Your task to perform on an android device: turn pop-ups off in chrome Image 0: 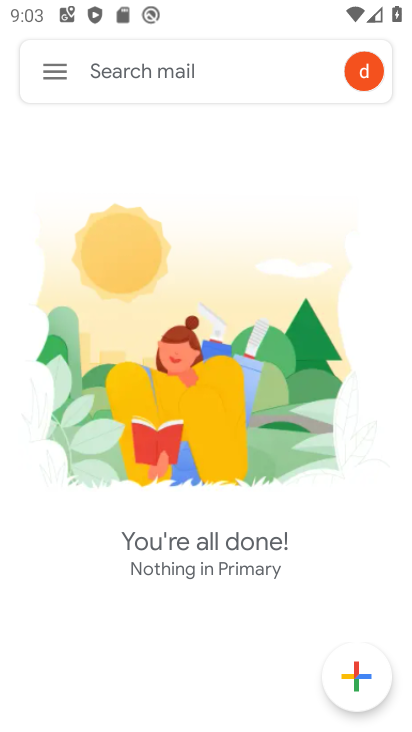
Step 0: press back button
Your task to perform on an android device: turn pop-ups off in chrome Image 1: 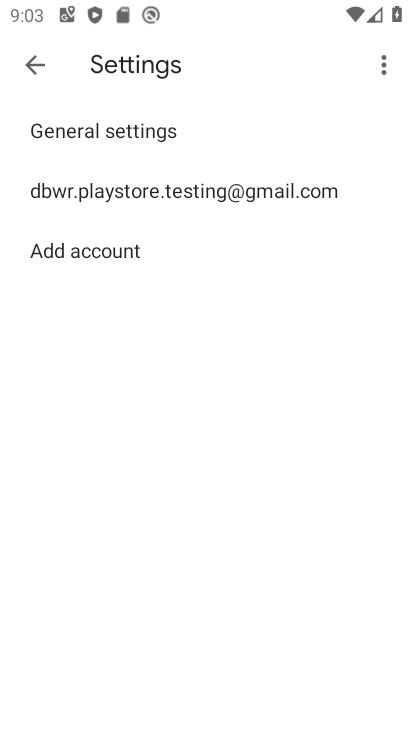
Step 1: press back button
Your task to perform on an android device: turn pop-ups off in chrome Image 2: 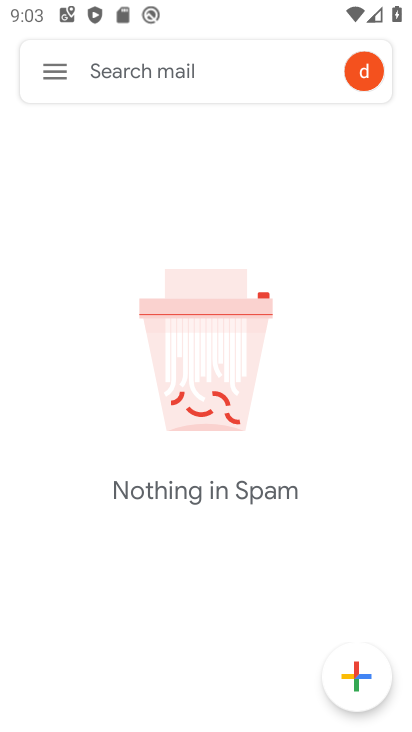
Step 2: press back button
Your task to perform on an android device: turn pop-ups off in chrome Image 3: 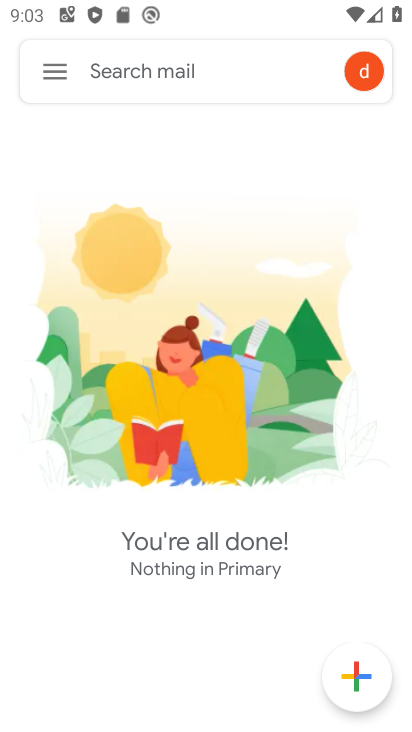
Step 3: press back button
Your task to perform on an android device: turn pop-ups off in chrome Image 4: 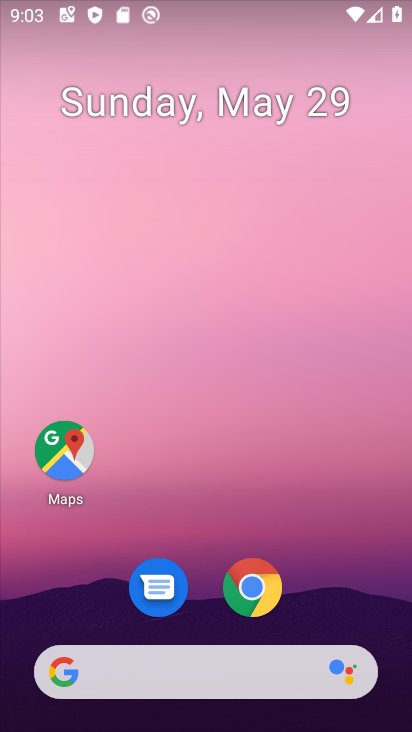
Step 4: click (253, 585)
Your task to perform on an android device: turn pop-ups off in chrome Image 5: 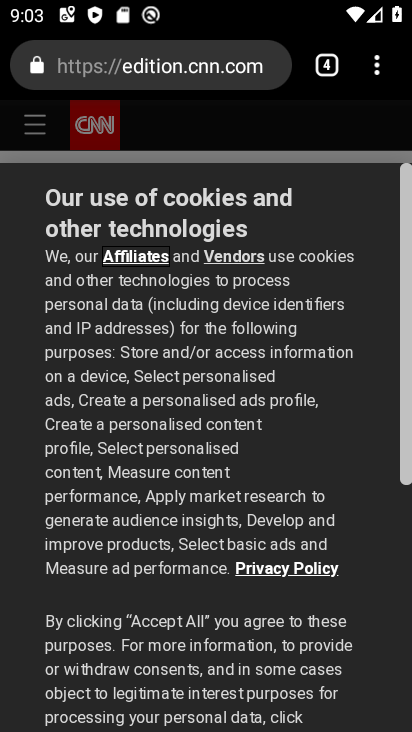
Step 5: drag from (375, 58) to (152, 635)
Your task to perform on an android device: turn pop-ups off in chrome Image 6: 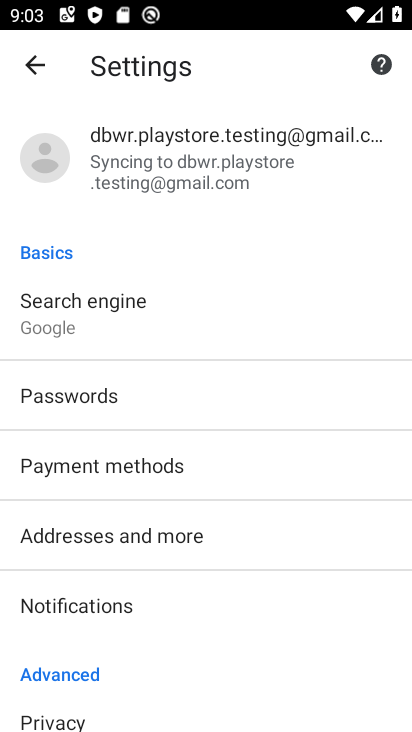
Step 6: drag from (159, 656) to (255, 170)
Your task to perform on an android device: turn pop-ups off in chrome Image 7: 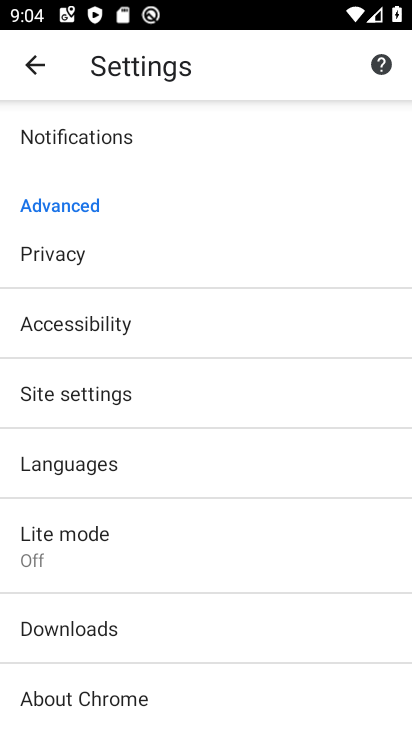
Step 7: click (111, 385)
Your task to perform on an android device: turn pop-ups off in chrome Image 8: 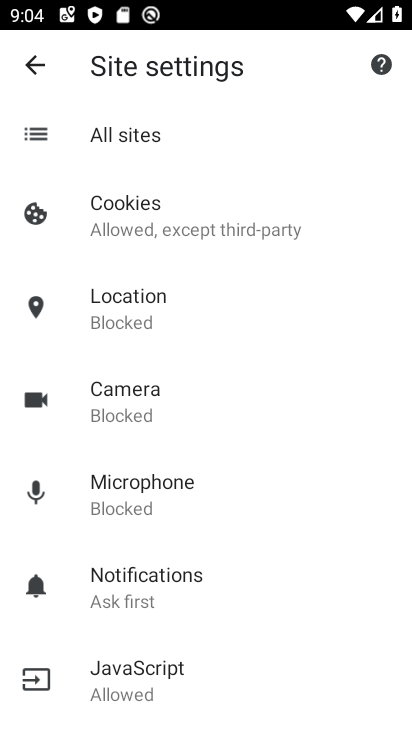
Step 8: drag from (141, 628) to (210, 207)
Your task to perform on an android device: turn pop-ups off in chrome Image 9: 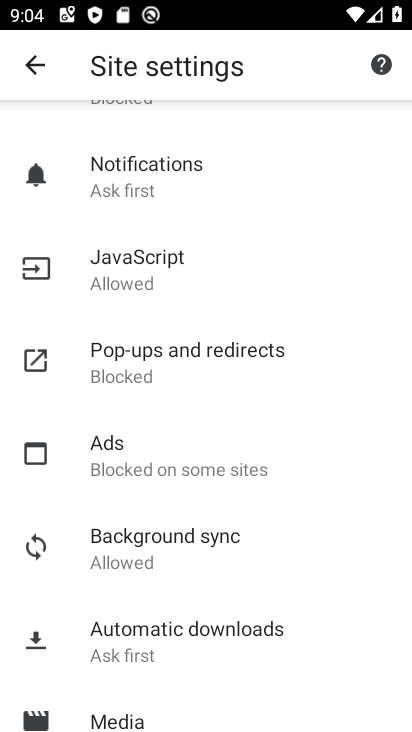
Step 9: click (147, 363)
Your task to perform on an android device: turn pop-ups off in chrome Image 10: 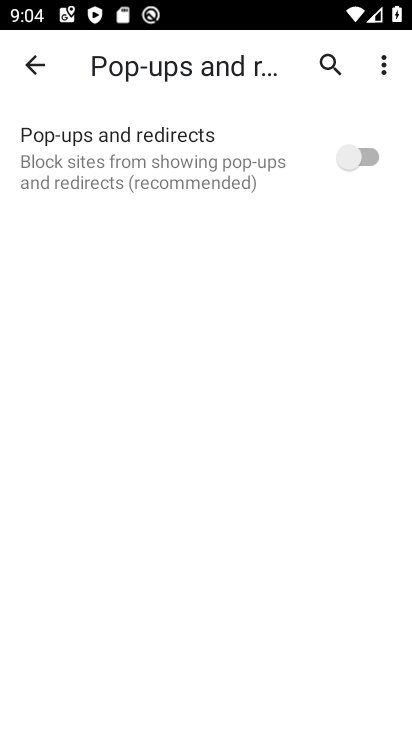
Step 10: task complete